Your task to perform on an android device: Go to accessibility settings Image 0: 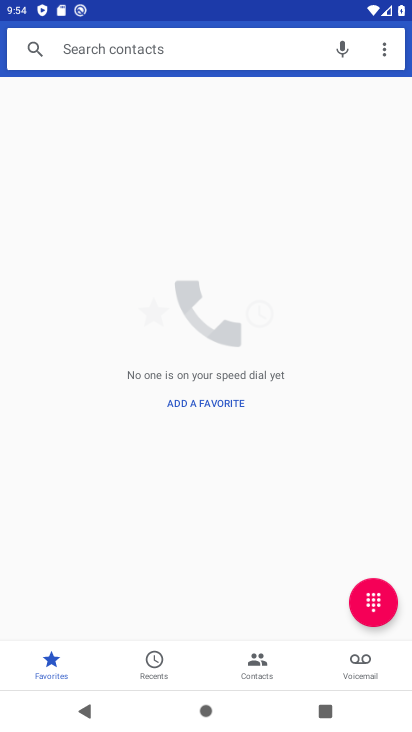
Step 0: press home button
Your task to perform on an android device: Go to accessibility settings Image 1: 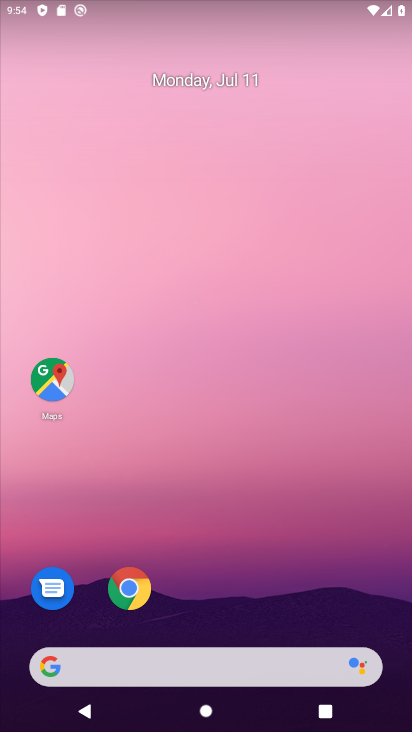
Step 1: drag from (205, 582) to (263, 2)
Your task to perform on an android device: Go to accessibility settings Image 2: 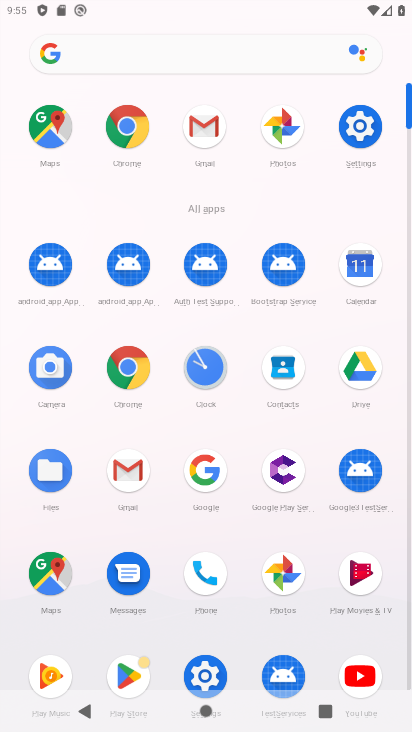
Step 2: click (362, 132)
Your task to perform on an android device: Go to accessibility settings Image 3: 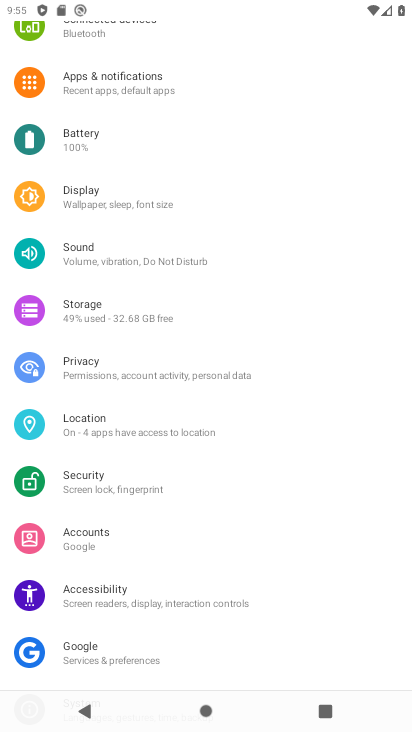
Step 3: click (129, 603)
Your task to perform on an android device: Go to accessibility settings Image 4: 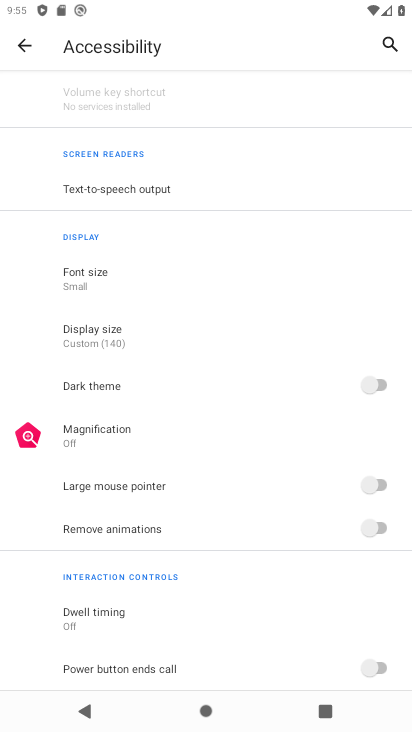
Step 4: task complete